Your task to perform on an android device: star an email in the gmail app Image 0: 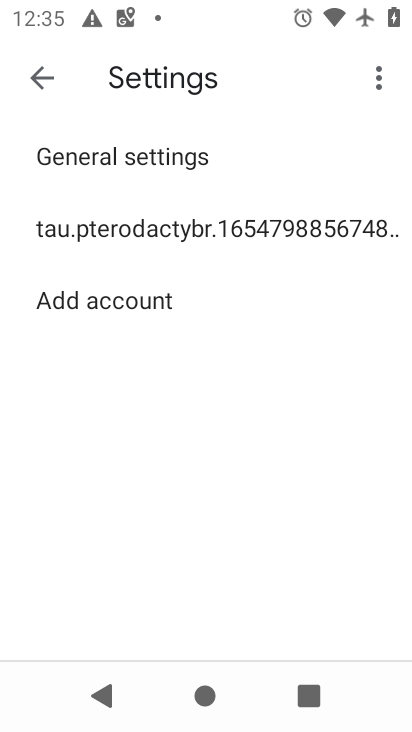
Step 0: press back button
Your task to perform on an android device: star an email in the gmail app Image 1: 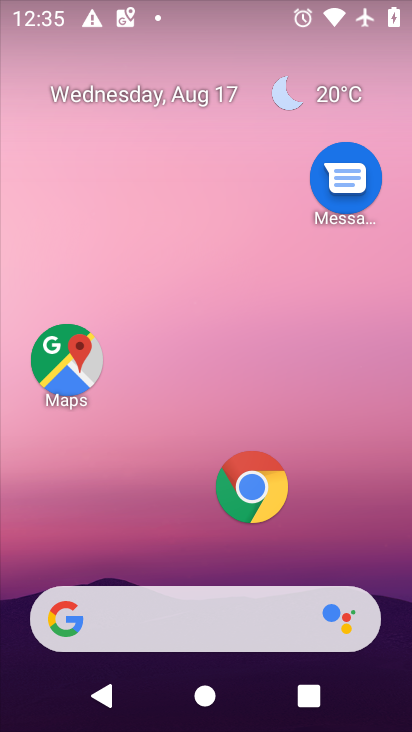
Step 1: drag from (168, 476) to (234, 41)
Your task to perform on an android device: star an email in the gmail app Image 2: 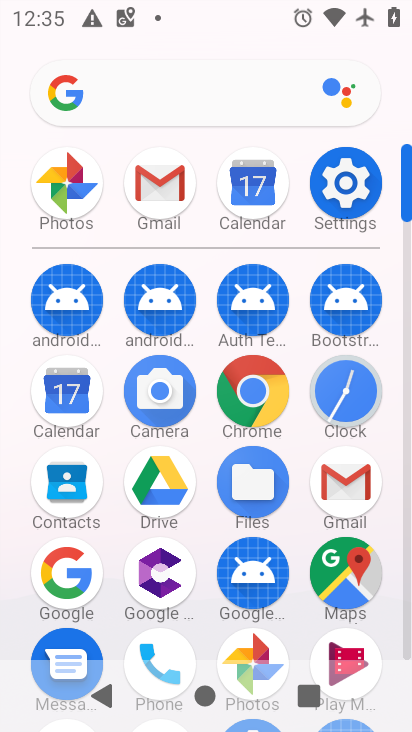
Step 2: click (162, 189)
Your task to perform on an android device: star an email in the gmail app Image 3: 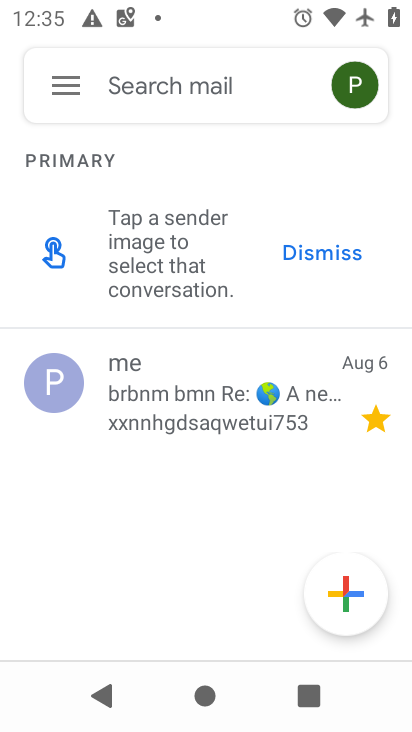
Step 3: task complete